Your task to perform on an android device: open app "Instagram" (install if not already installed) Image 0: 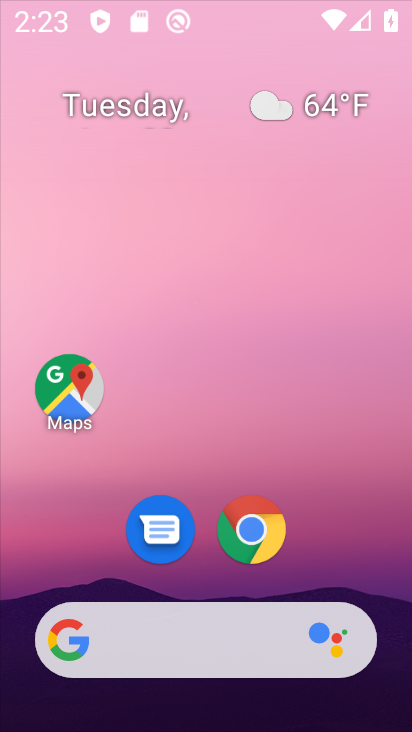
Step 0: drag from (225, 169) to (253, 3)
Your task to perform on an android device: open app "Instagram" (install if not already installed) Image 1: 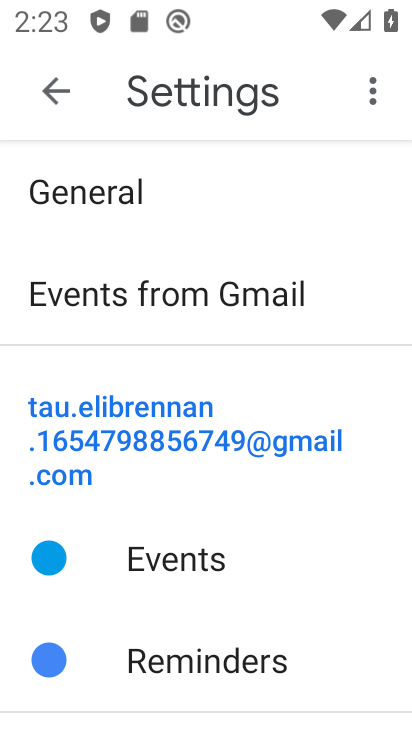
Step 1: press home button
Your task to perform on an android device: open app "Instagram" (install if not already installed) Image 2: 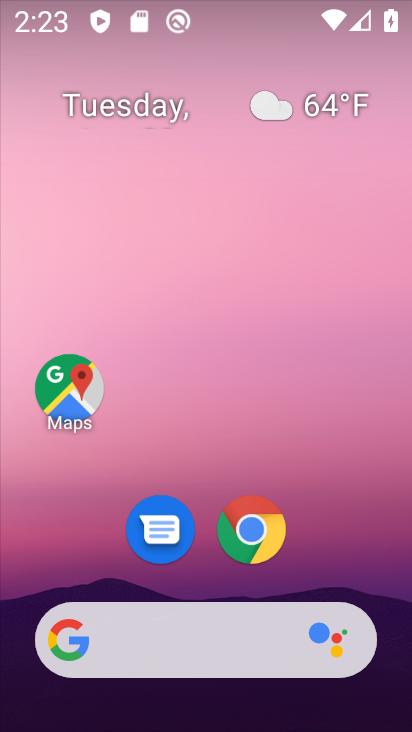
Step 2: drag from (187, 594) to (262, 12)
Your task to perform on an android device: open app "Instagram" (install if not already installed) Image 3: 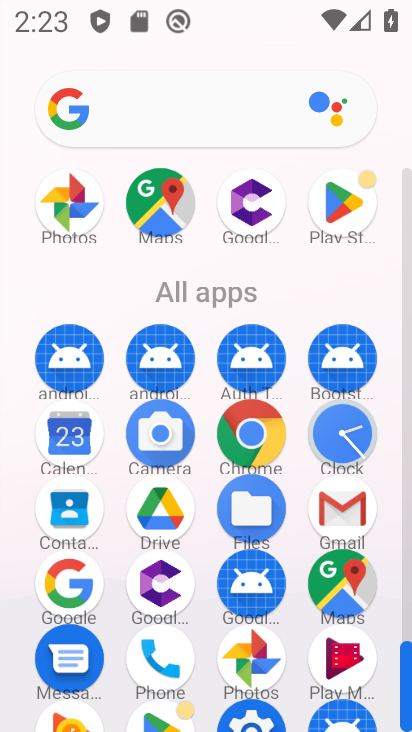
Step 3: click (336, 203)
Your task to perform on an android device: open app "Instagram" (install if not already installed) Image 4: 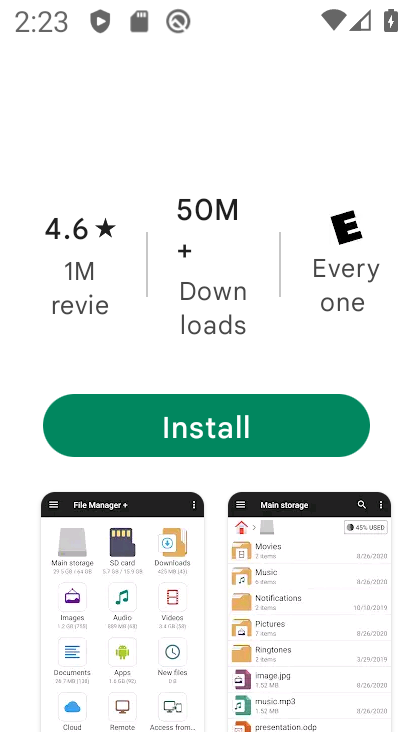
Step 4: drag from (223, 140) to (192, 603)
Your task to perform on an android device: open app "Instagram" (install if not already installed) Image 5: 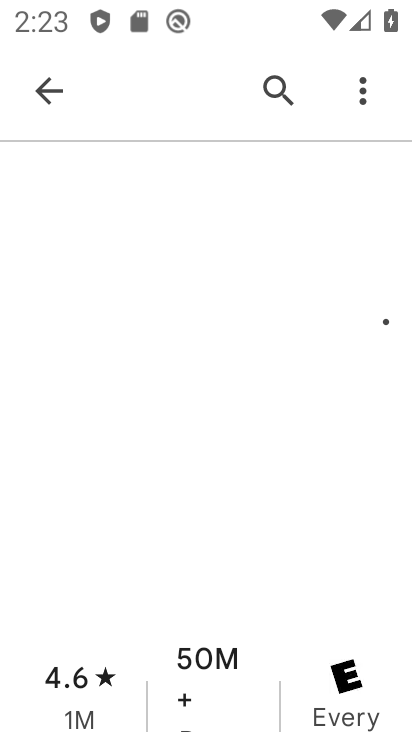
Step 5: click (53, 95)
Your task to perform on an android device: open app "Instagram" (install if not already installed) Image 6: 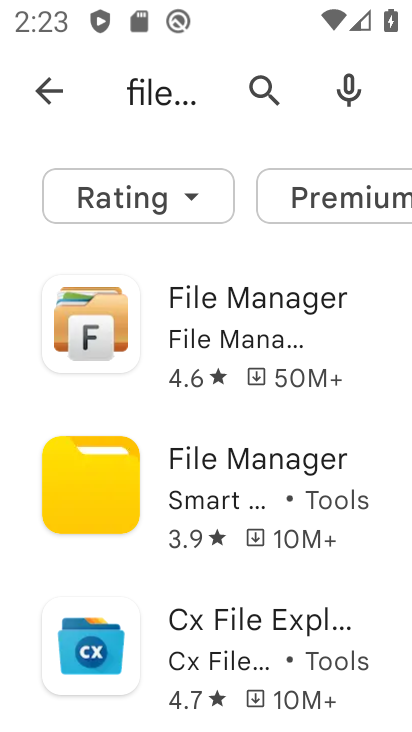
Step 6: click (158, 91)
Your task to perform on an android device: open app "Instagram" (install if not already installed) Image 7: 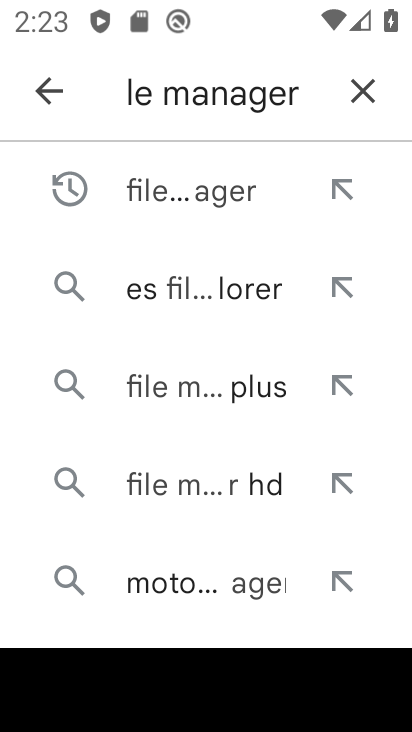
Step 7: click (357, 83)
Your task to perform on an android device: open app "Instagram" (install if not already installed) Image 8: 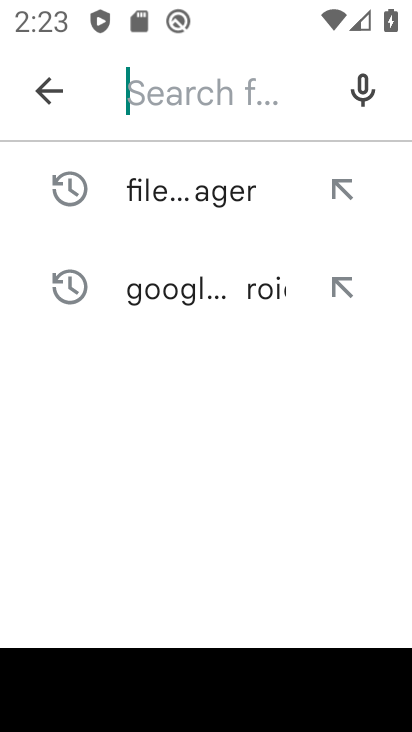
Step 8: type "insragram"
Your task to perform on an android device: open app "Instagram" (install if not already installed) Image 9: 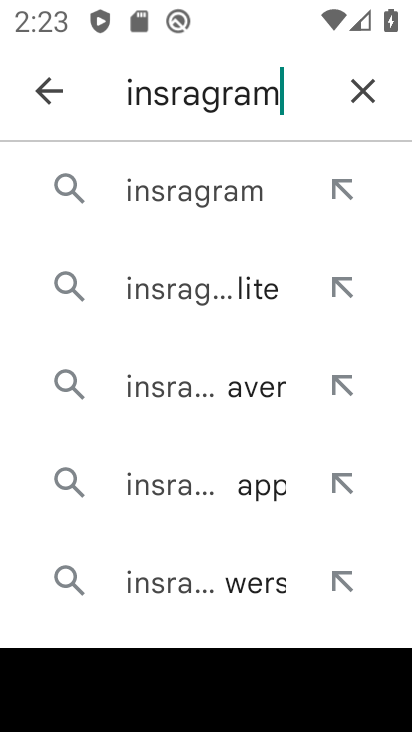
Step 9: click (214, 211)
Your task to perform on an android device: open app "Instagram" (install if not already installed) Image 10: 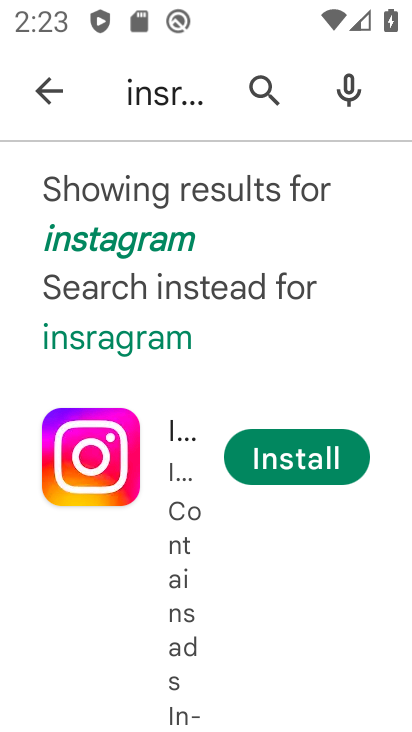
Step 10: click (305, 448)
Your task to perform on an android device: open app "Instagram" (install if not already installed) Image 11: 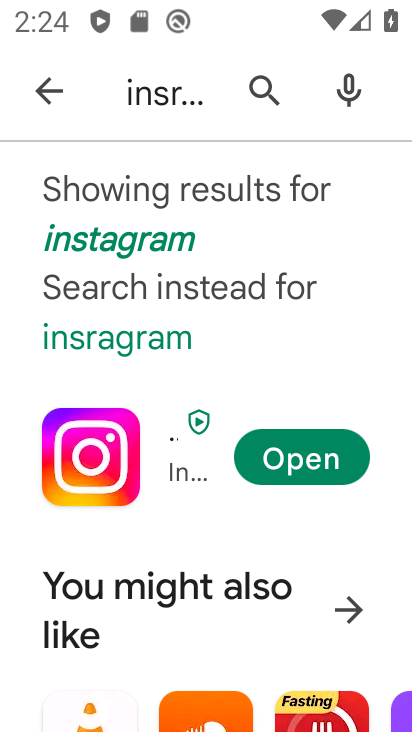
Step 11: click (329, 462)
Your task to perform on an android device: open app "Instagram" (install if not already installed) Image 12: 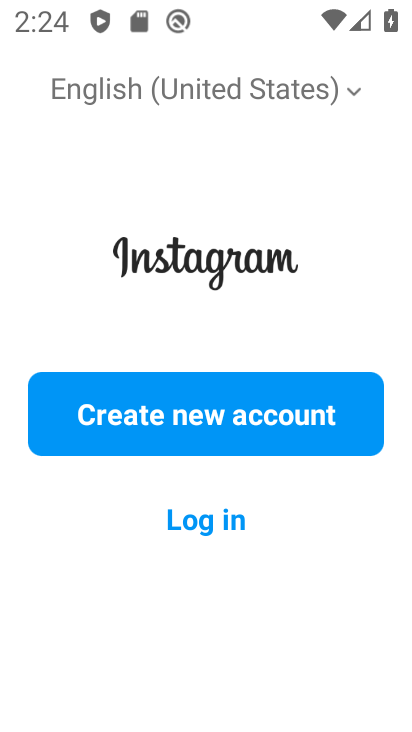
Step 12: click (210, 519)
Your task to perform on an android device: open app "Instagram" (install if not already installed) Image 13: 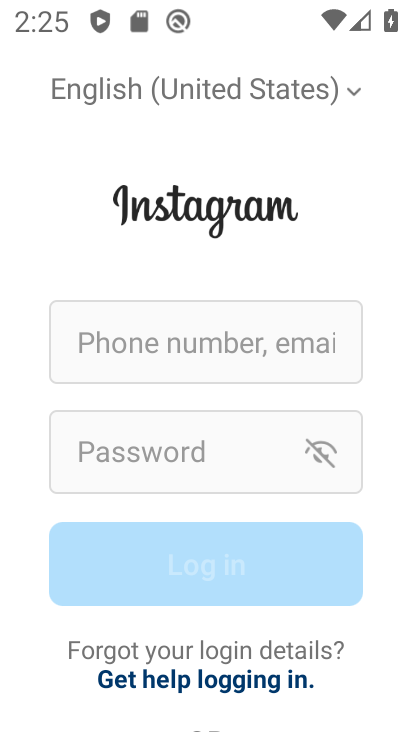
Step 13: task complete